Your task to perform on an android device: turn off location history Image 0: 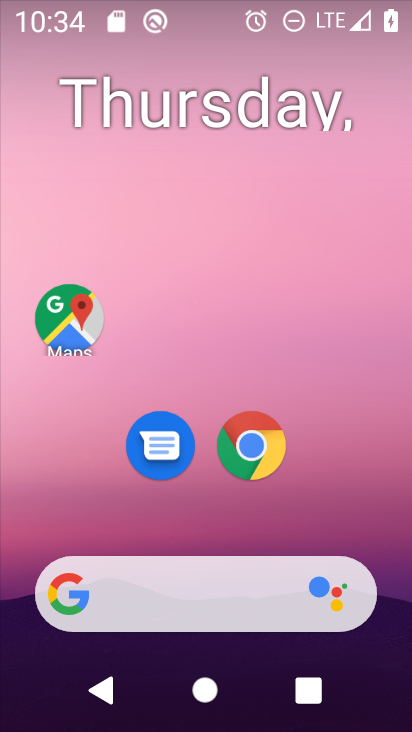
Step 0: click (388, 621)
Your task to perform on an android device: turn off location history Image 1: 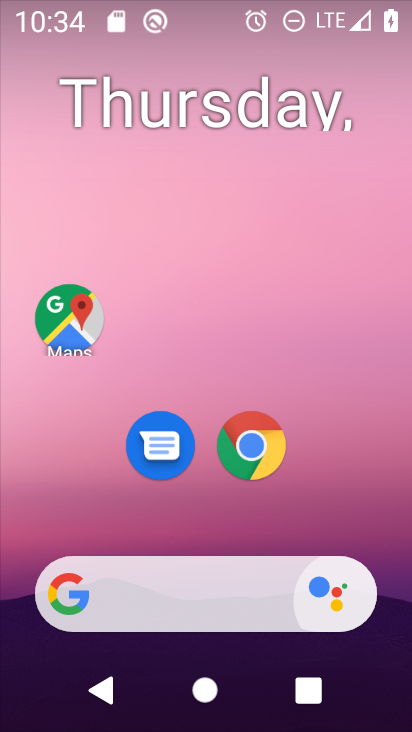
Step 1: drag from (383, 433) to (293, 40)
Your task to perform on an android device: turn off location history Image 2: 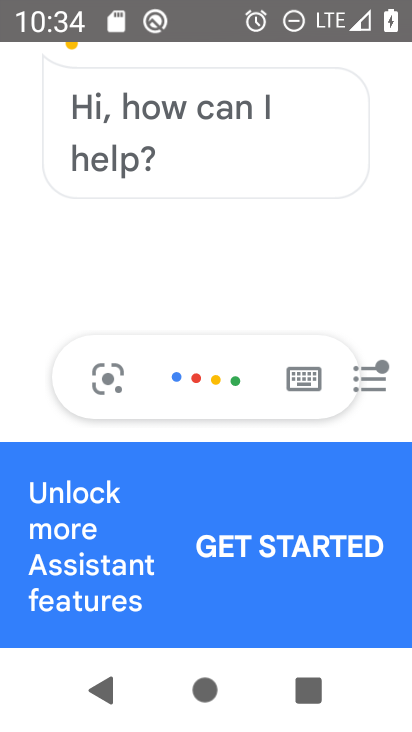
Step 2: press home button
Your task to perform on an android device: turn off location history Image 3: 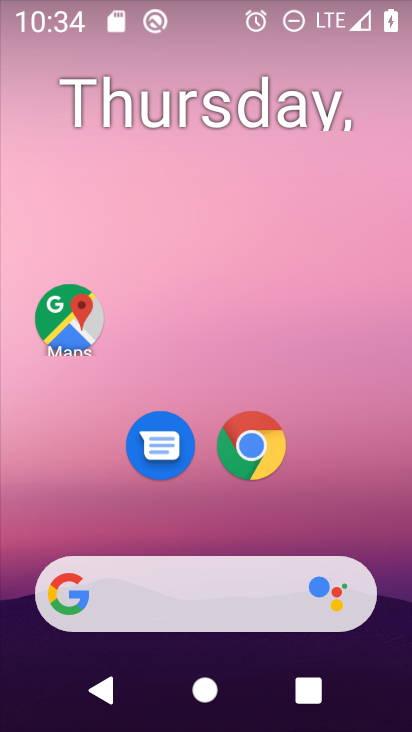
Step 3: drag from (402, 624) to (352, 50)
Your task to perform on an android device: turn off location history Image 4: 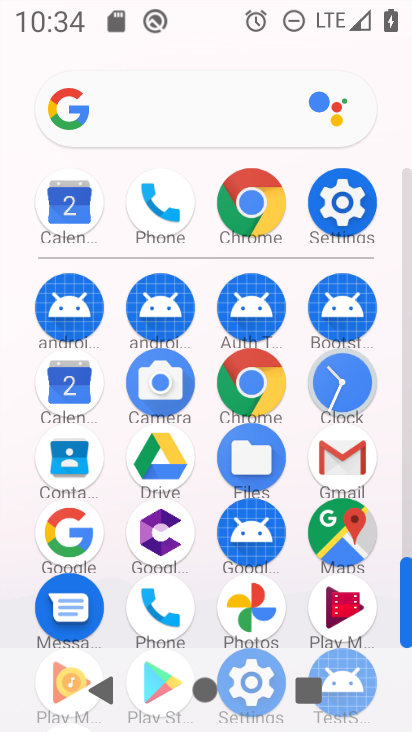
Step 4: click (356, 192)
Your task to perform on an android device: turn off location history Image 5: 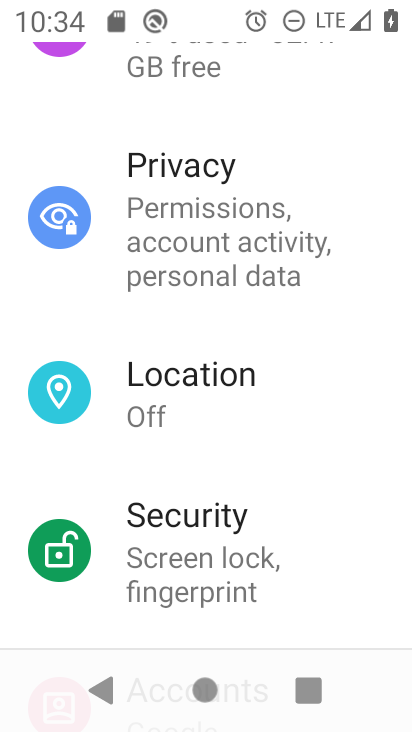
Step 5: click (247, 397)
Your task to perform on an android device: turn off location history Image 6: 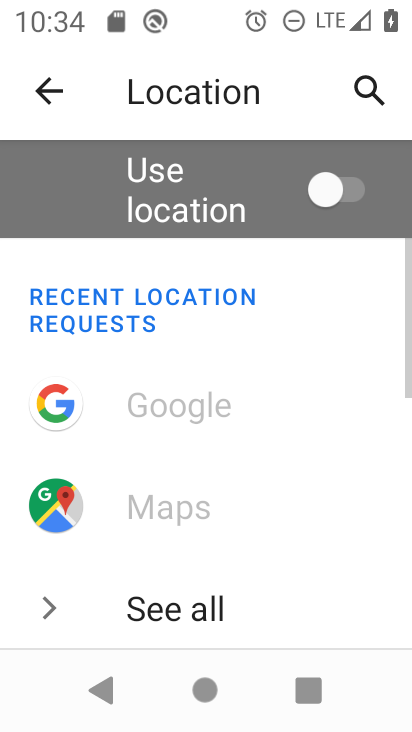
Step 6: drag from (300, 617) to (273, 92)
Your task to perform on an android device: turn off location history Image 7: 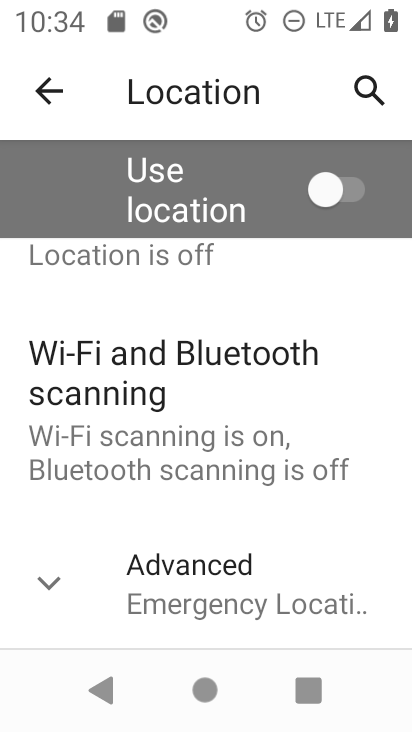
Step 7: click (242, 559)
Your task to perform on an android device: turn off location history Image 8: 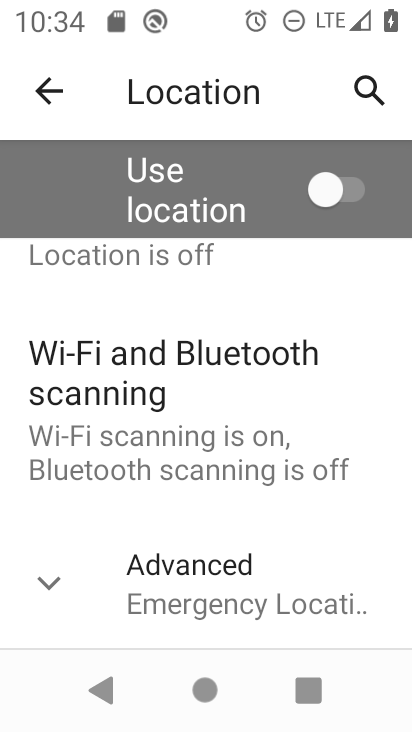
Step 8: drag from (250, 511) to (260, 266)
Your task to perform on an android device: turn off location history Image 9: 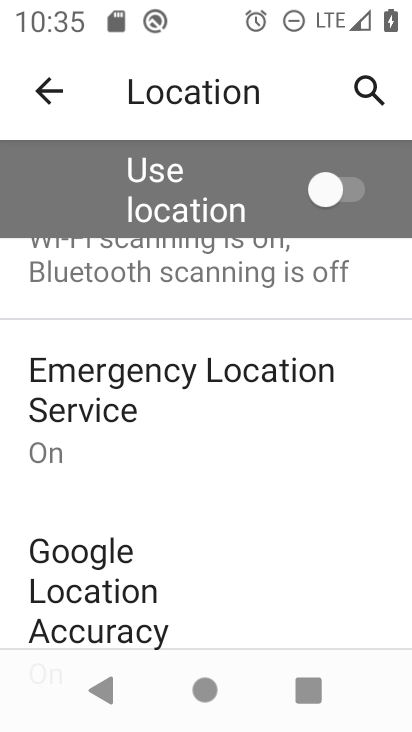
Step 9: drag from (158, 607) to (212, 164)
Your task to perform on an android device: turn off location history Image 10: 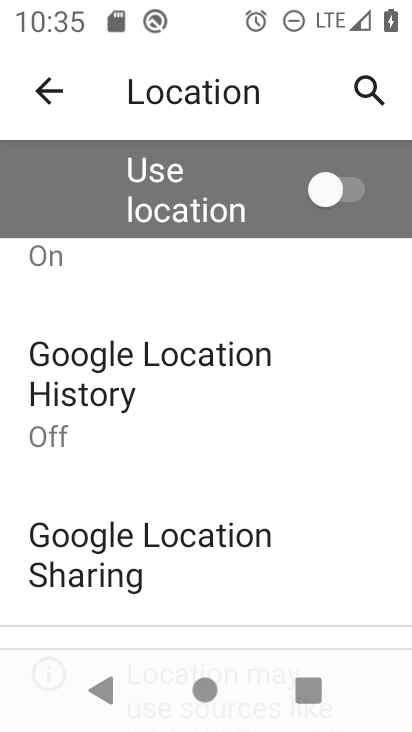
Step 10: click (173, 385)
Your task to perform on an android device: turn off location history Image 11: 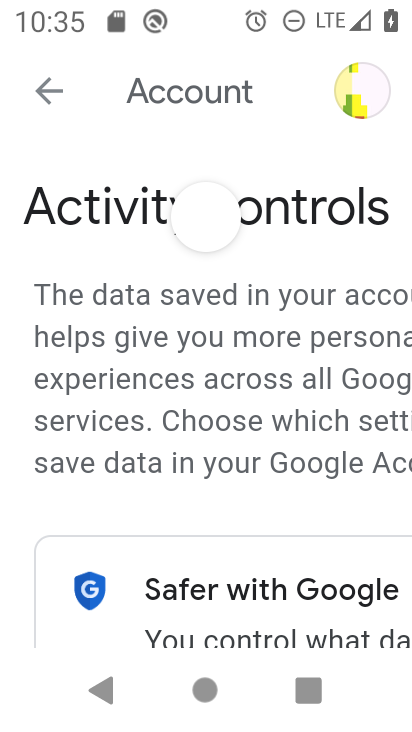
Step 11: task complete